Your task to perform on an android device: Show me the alarms in the clock app Image 0: 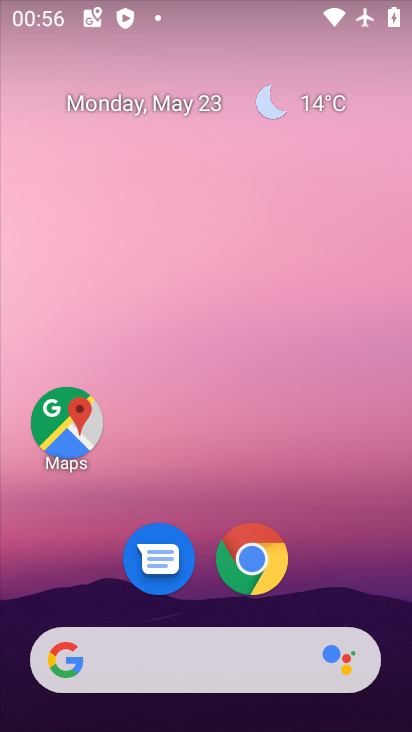
Step 0: drag from (362, 508) to (382, 0)
Your task to perform on an android device: Show me the alarms in the clock app Image 1: 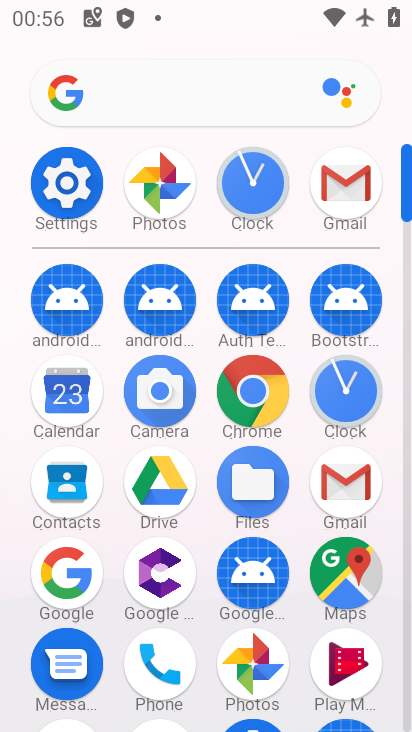
Step 1: click (254, 188)
Your task to perform on an android device: Show me the alarms in the clock app Image 2: 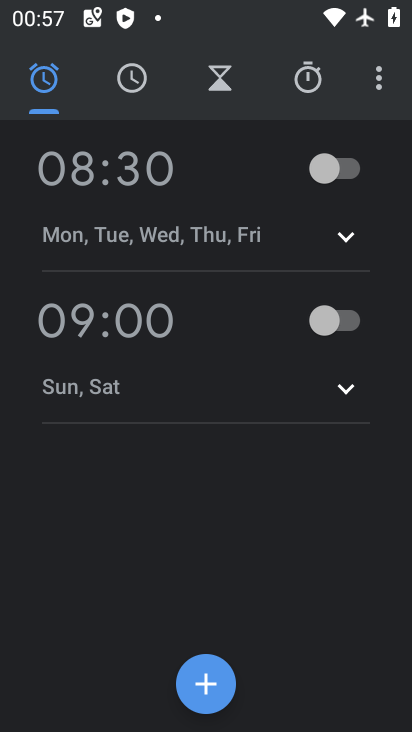
Step 2: task complete